Your task to perform on an android device: Search for Italian restaurants on Maps Image 0: 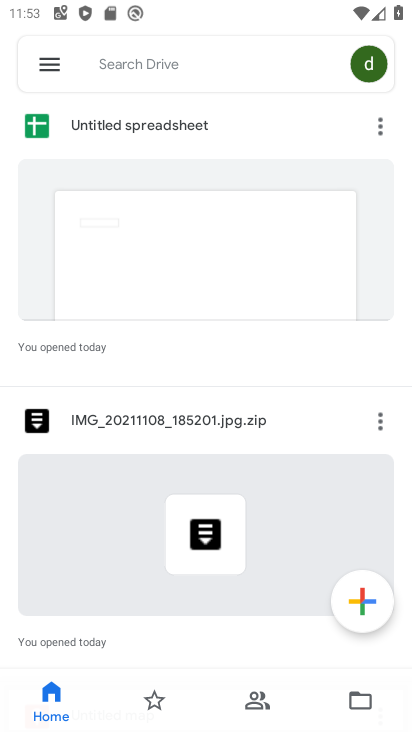
Step 0: press home button
Your task to perform on an android device: Search for Italian restaurants on Maps Image 1: 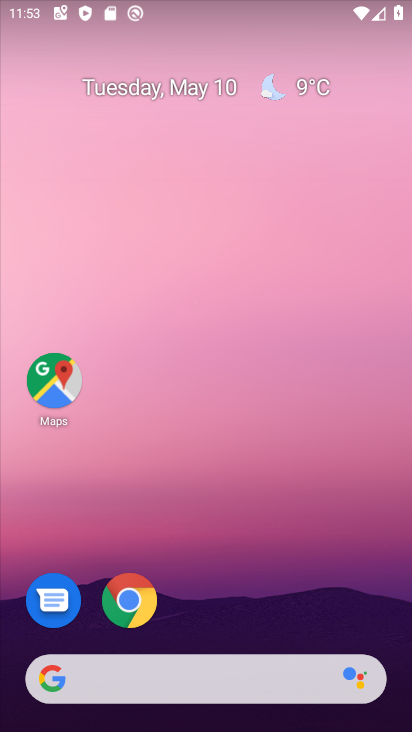
Step 1: click (51, 370)
Your task to perform on an android device: Search for Italian restaurants on Maps Image 2: 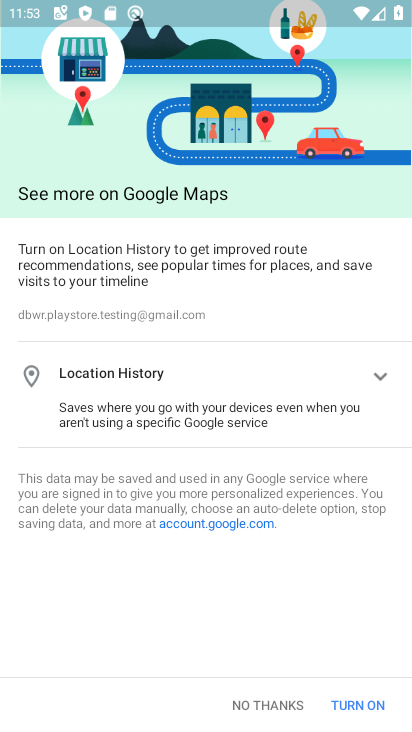
Step 2: click (370, 696)
Your task to perform on an android device: Search for Italian restaurants on Maps Image 3: 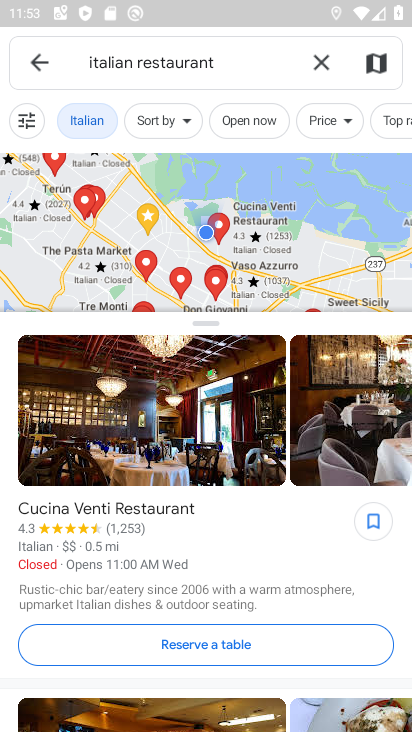
Step 3: task complete